Your task to perform on an android device: toggle data saver in the chrome app Image 0: 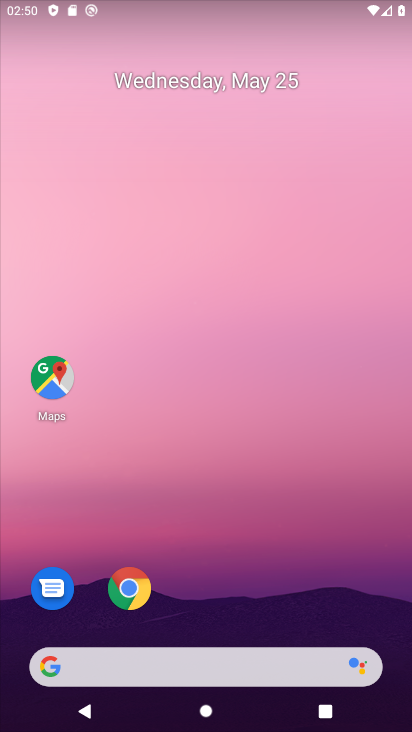
Step 0: press home button
Your task to perform on an android device: toggle data saver in the chrome app Image 1: 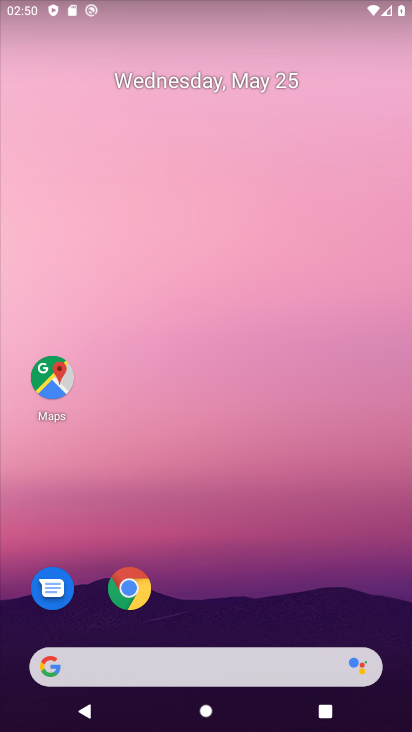
Step 1: click (129, 579)
Your task to perform on an android device: toggle data saver in the chrome app Image 2: 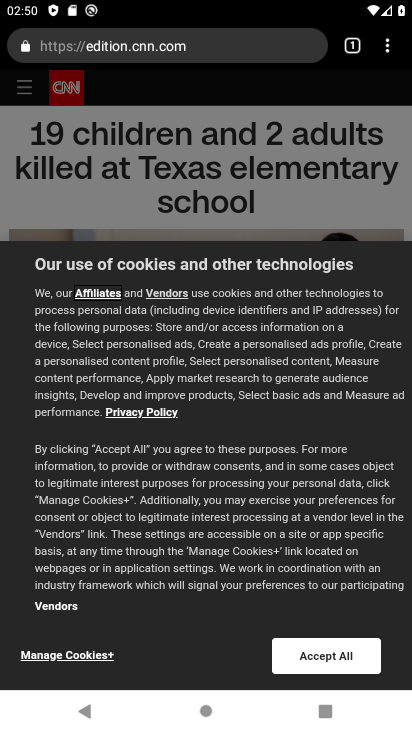
Step 2: drag from (380, 45) to (241, 509)
Your task to perform on an android device: toggle data saver in the chrome app Image 3: 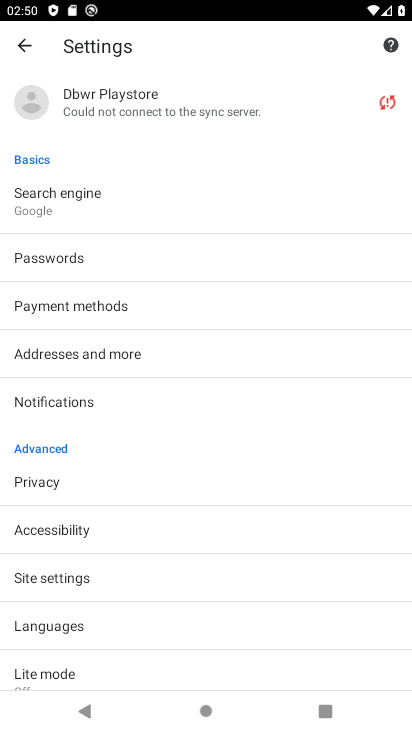
Step 3: click (49, 666)
Your task to perform on an android device: toggle data saver in the chrome app Image 4: 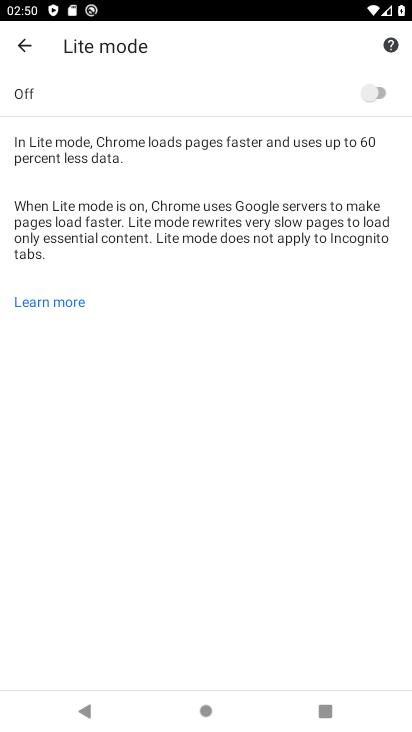
Step 4: click (390, 82)
Your task to perform on an android device: toggle data saver in the chrome app Image 5: 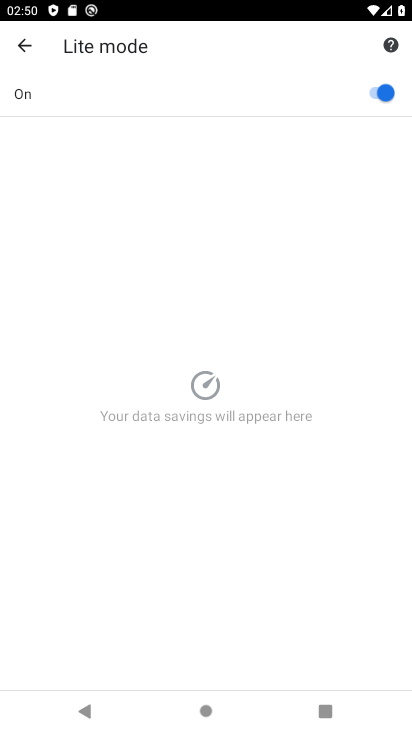
Step 5: task complete